Your task to perform on an android device: Open the Play Movies app and select the watchlist tab. Image 0: 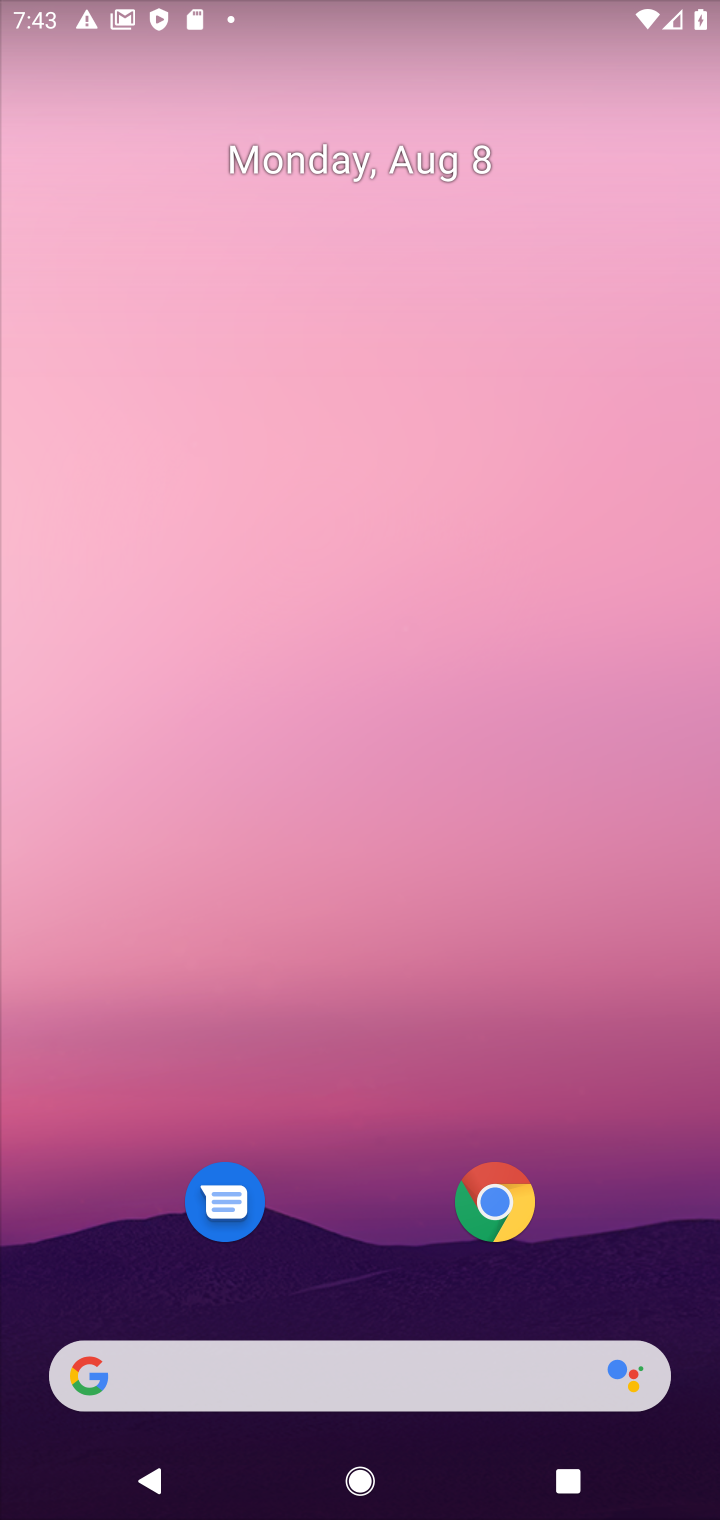
Step 0: drag from (543, 1080) to (555, 259)
Your task to perform on an android device: Open the Play Movies app and select the watchlist tab. Image 1: 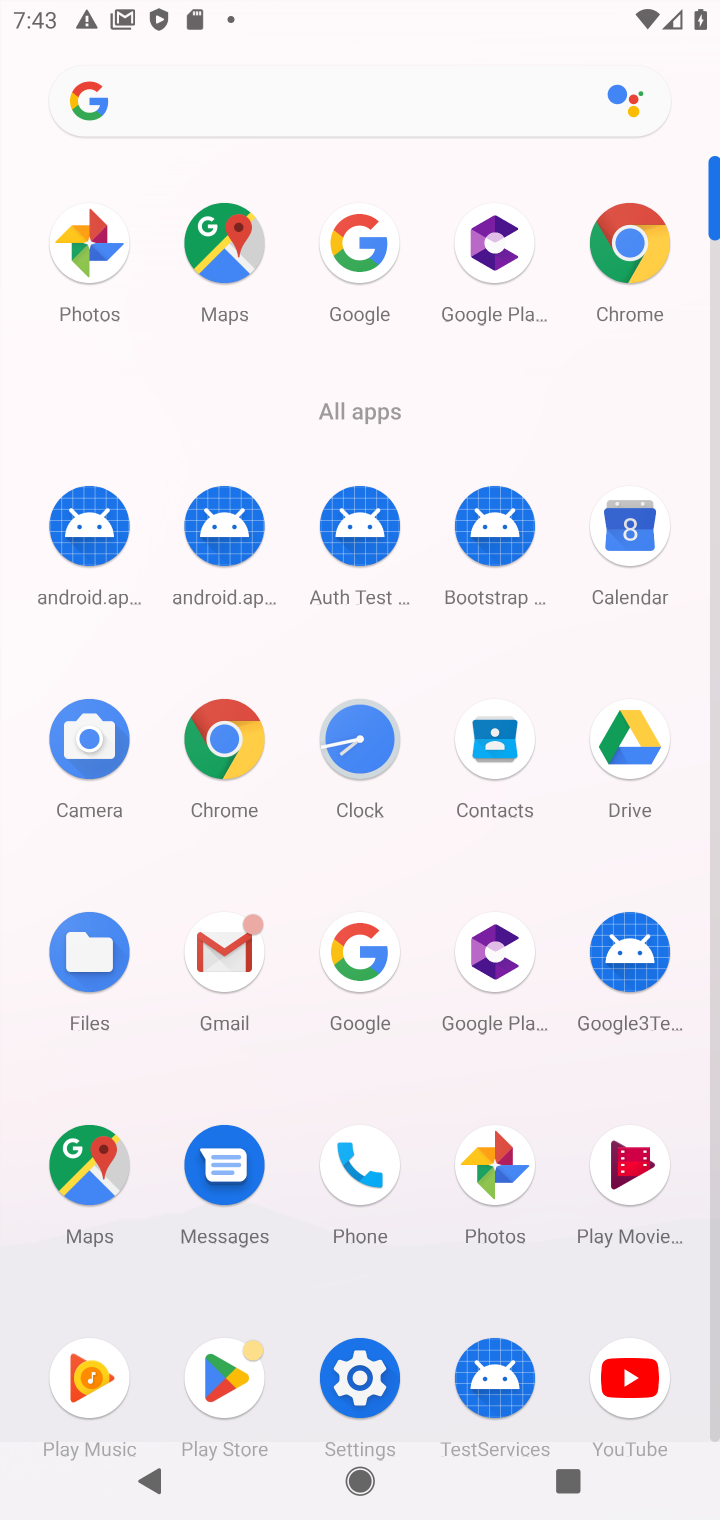
Step 1: click (633, 1216)
Your task to perform on an android device: Open the Play Movies app and select the watchlist tab. Image 2: 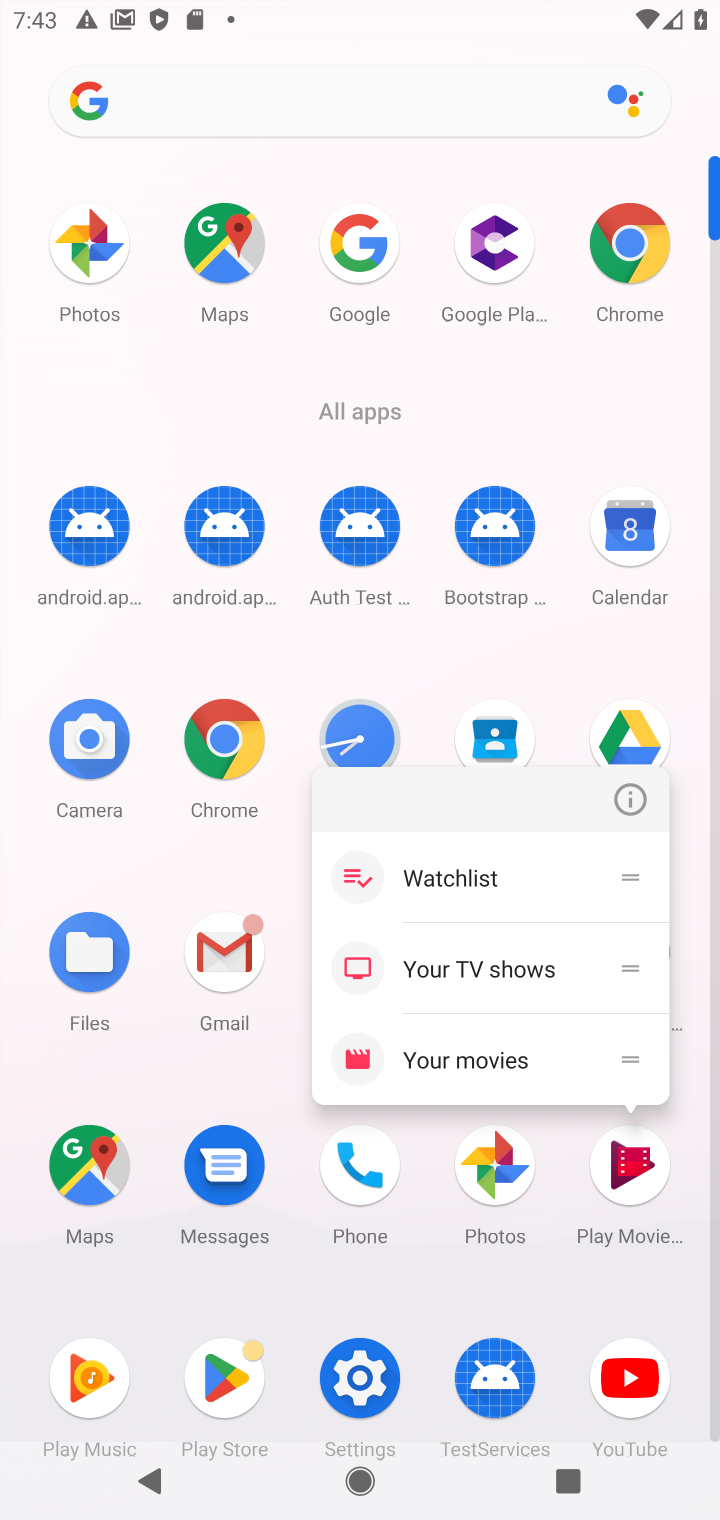
Step 2: click (642, 1207)
Your task to perform on an android device: Open the Play Movies app and select the watchlist tab. Image 3: 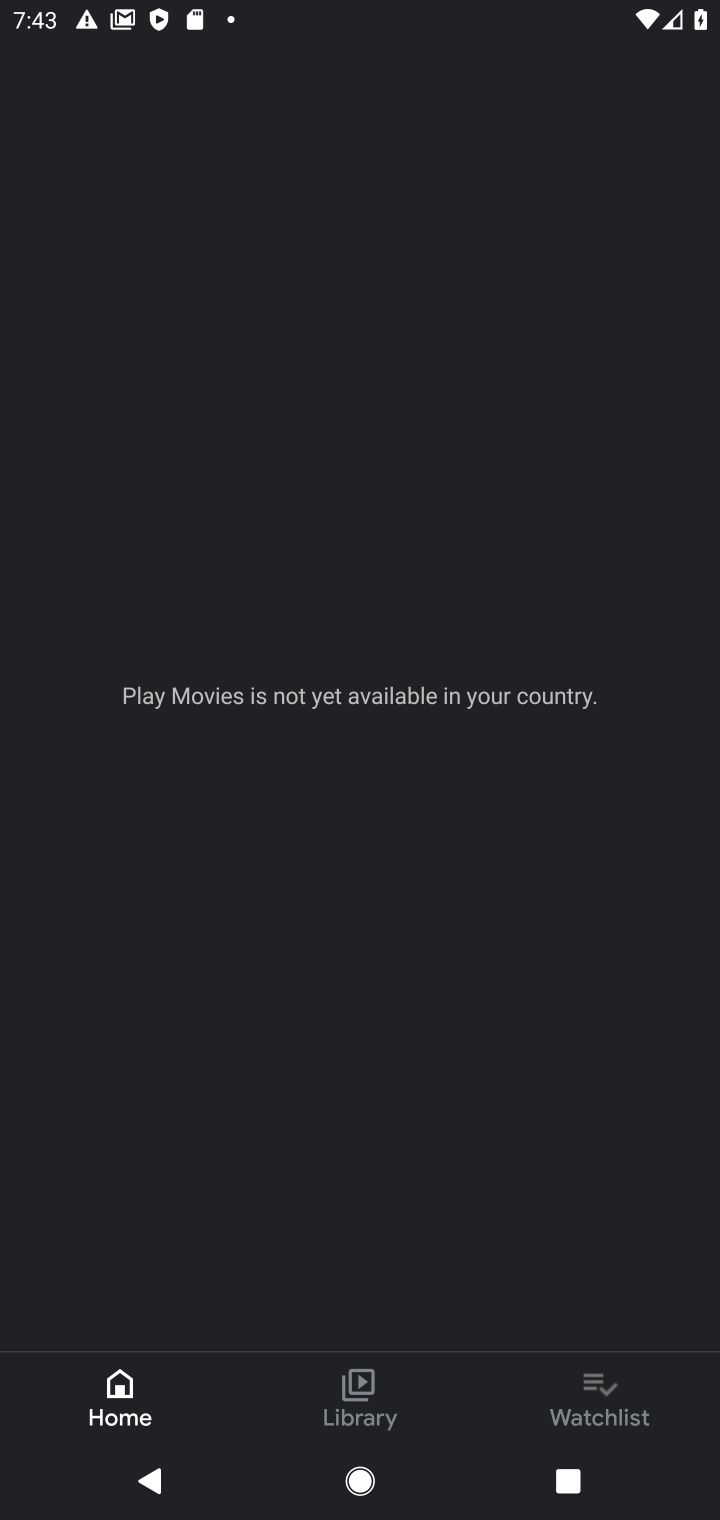
Step 3: click (603, 1453)
Your task to perform on an android device: Open the Play Movies app and select the watchlist tab. Image 4: 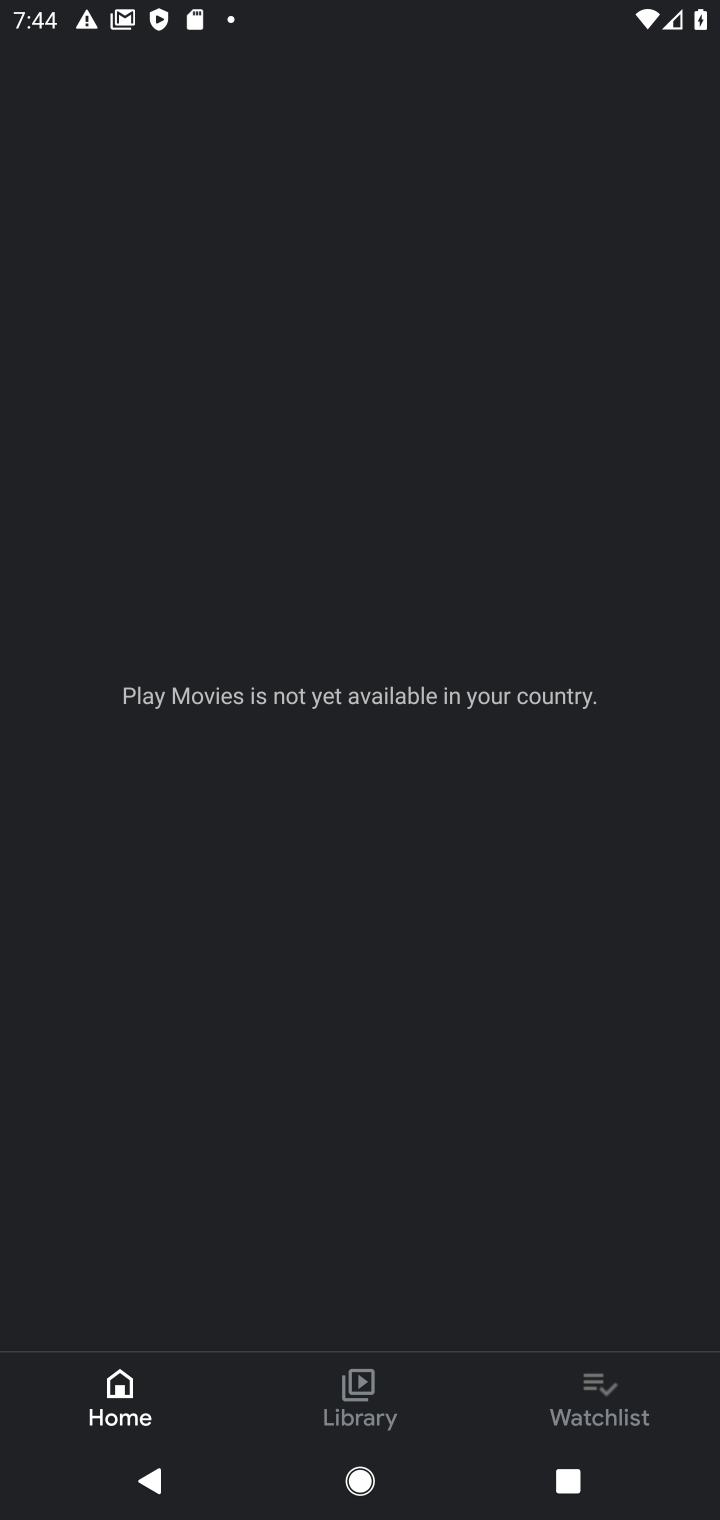
Step 4: click (618, 1406)
Your task to perform on an android device: Open the Play Movies app and select the watchlist tab. Image 5: 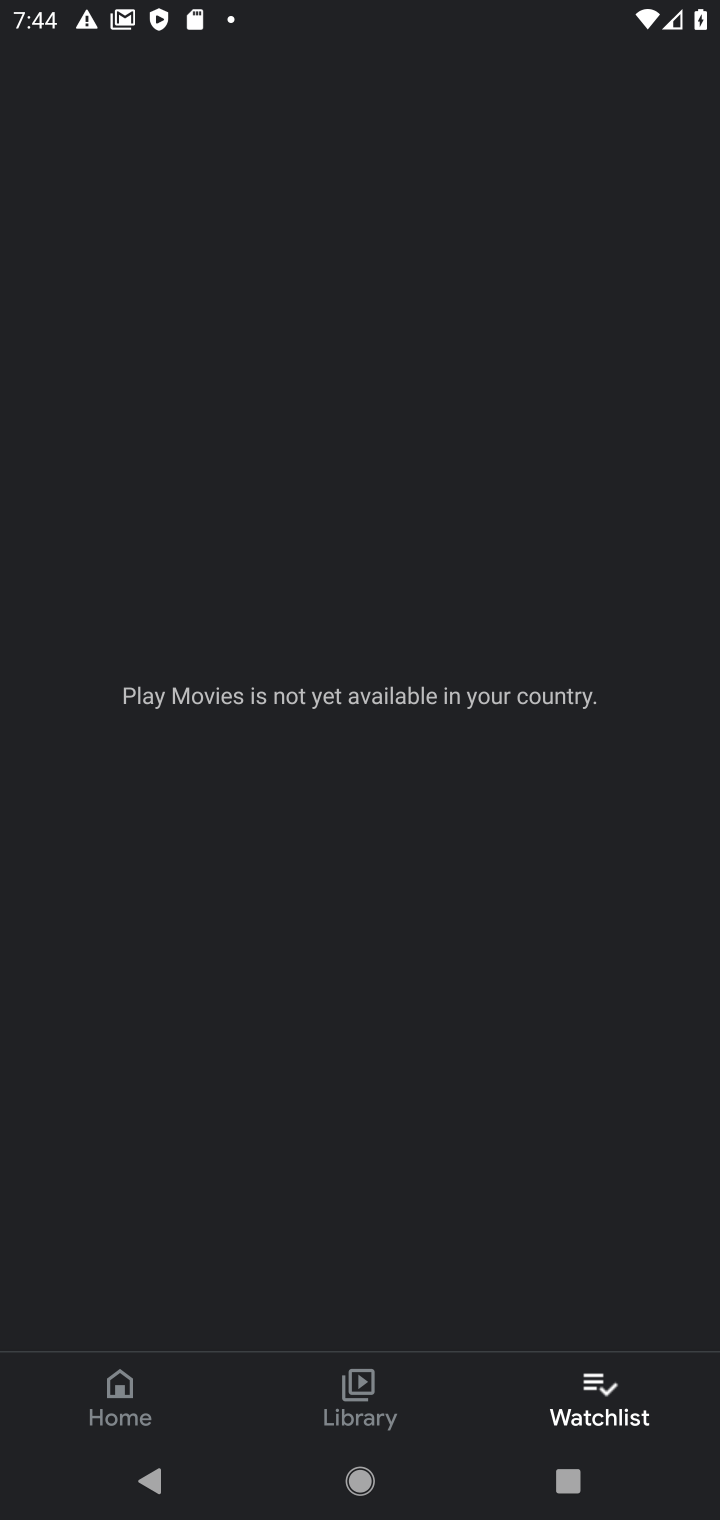
Step 5: task complete